Your task to perform on an android device: Open accessibility settings Image 0: 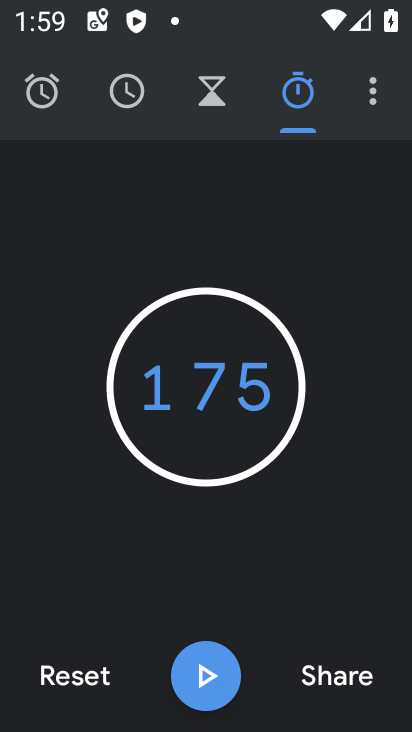
Step 0: press home button
Your task to perform on an android device: Open accessibility settings Image 1: 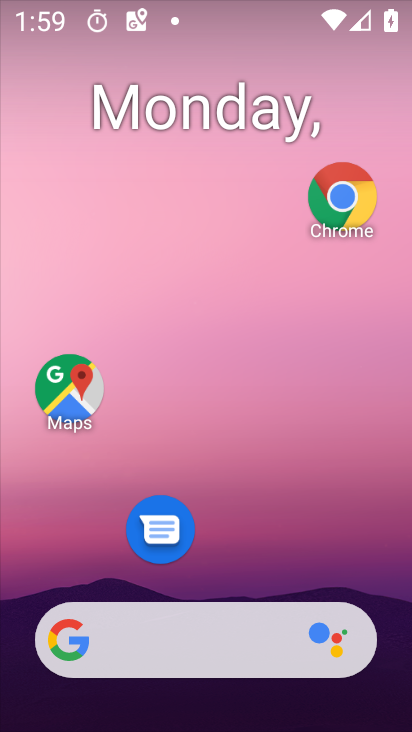
Step 1: drag from (233, 584) to (151, 25)
Your task to perform on an android device: Open accessibility settings Image 2: 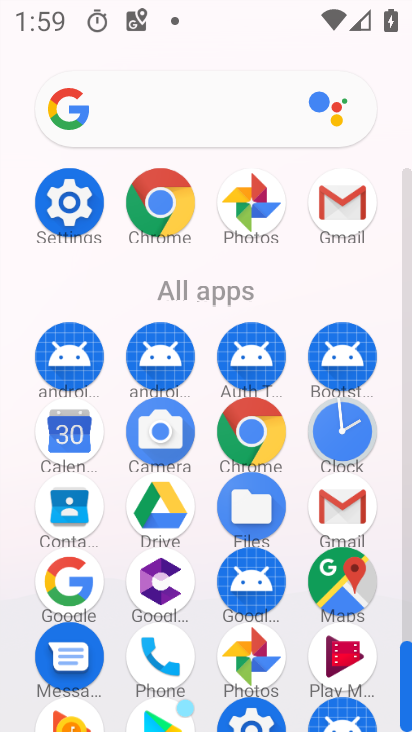
Step 2: click (69, 229)
Your task to perform on an android device: Open accessibility settings Image 3: 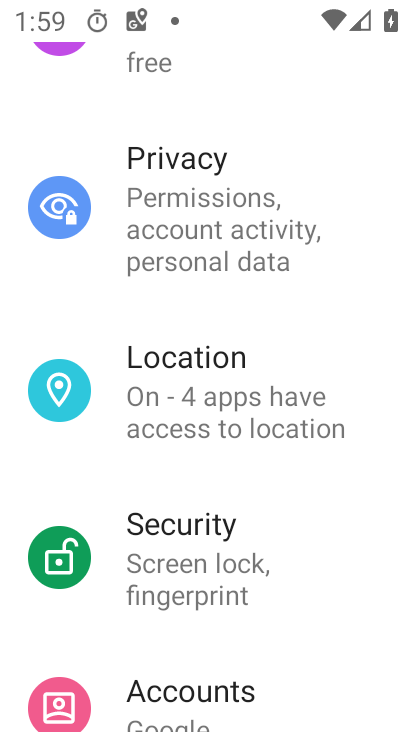
Step 3: drag from (242, 585) to (200, 214)
Your task to perform on an android device: Open accessibility settings Image 4: 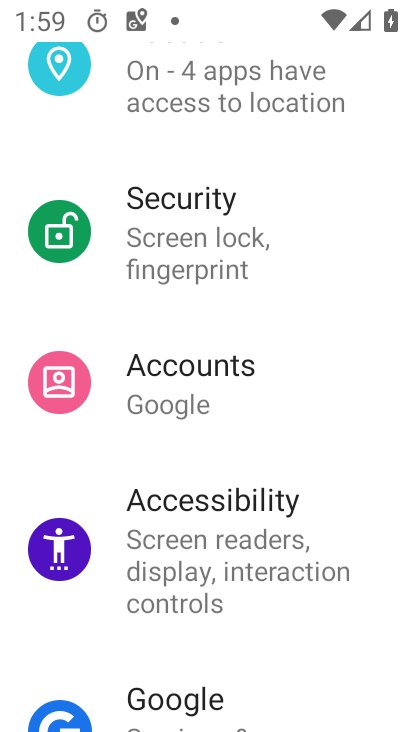
Step 4: click (230, 503)
Your task to perform on an android device: Open accessibility settings Image 5: 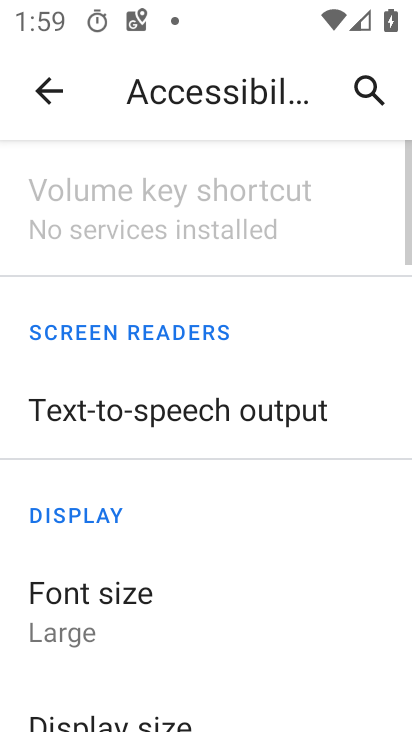
Step 5: task complete